Your task to perform on an android device: change the clock style Image 0: 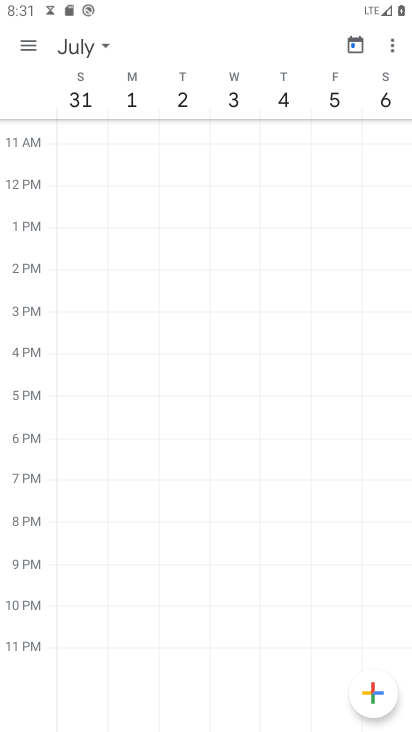
Step 0: press home button
Your task to perform on an android device: change the clock style Image 1: 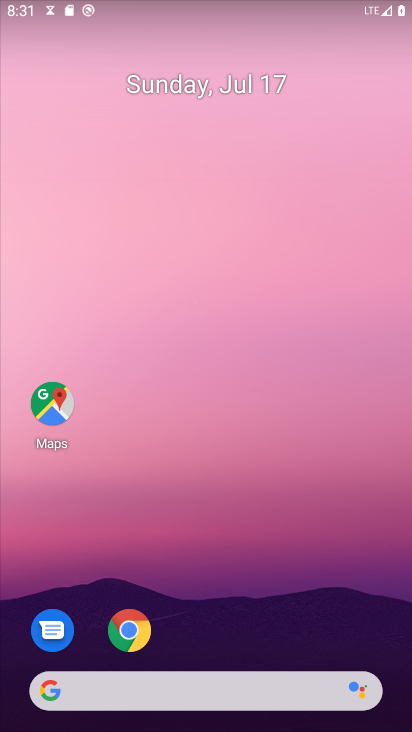
Step 1: drag from (237, 620) to (299, 7)
Your task to perform on an android device: change the clock style Image 2: 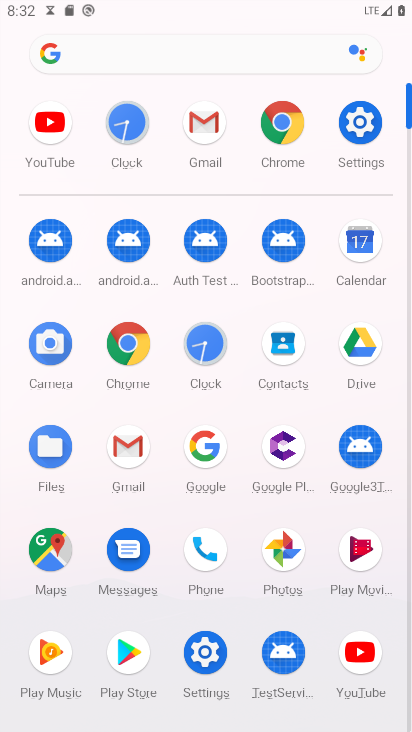
Step 2: click (196, 356)
Your task to perform on an android device: change the clock style Image 3: 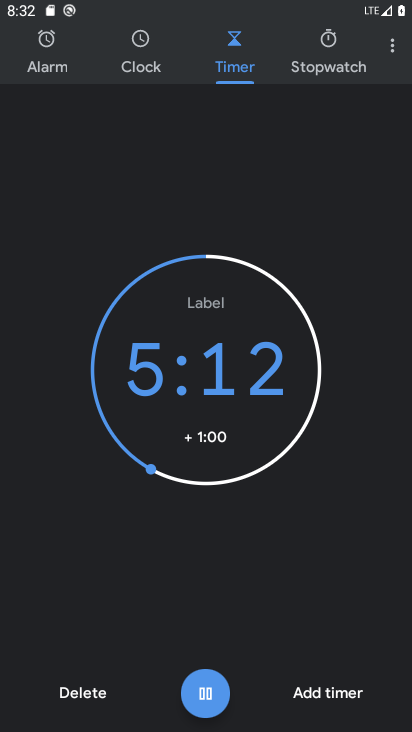
Step 3: click (388, 52)
Your task to perform on an android device: change the clock style Image 4: 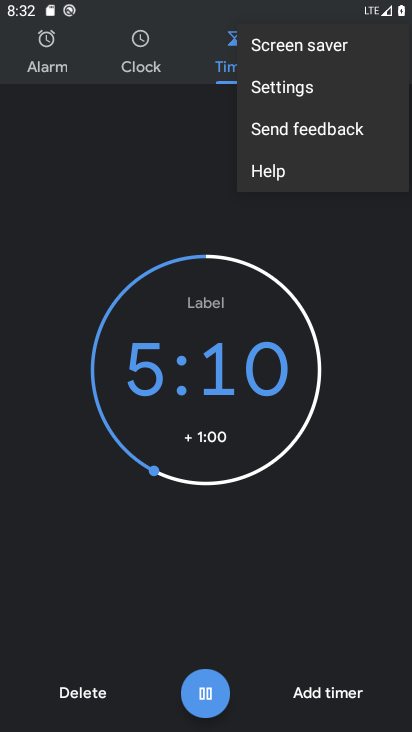
Step 4: click (292, 90)
Your task to perform on an android device: change the clock style Image 5: 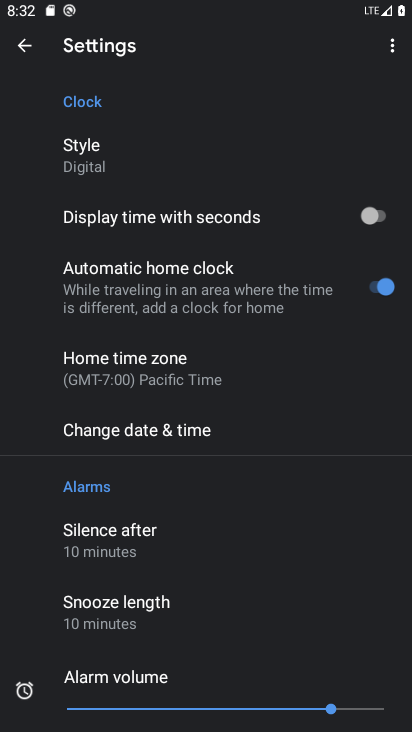
Step 5: click (93, 164)
Your task to perform on an android device: change the clock style Image 6: 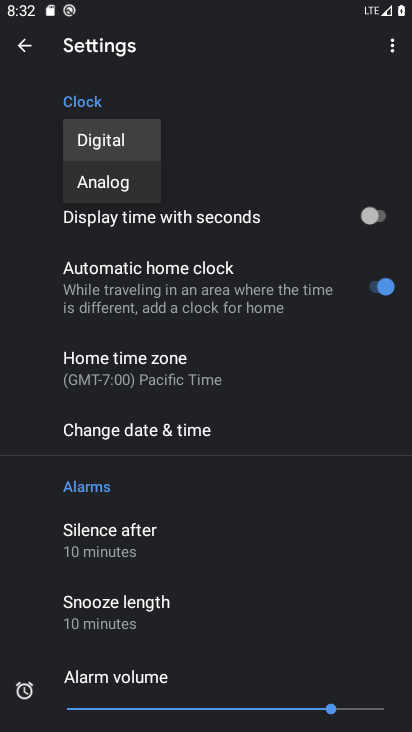
Step 6: click (120, 184)
Your task to perform on an android device: change the clock style Image 7: 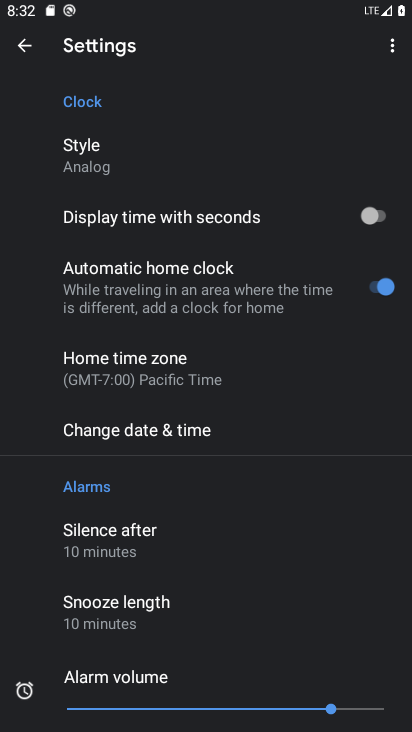
Step 7: task complete